Your task to perform on an android device: Open Google Maps Image 0: 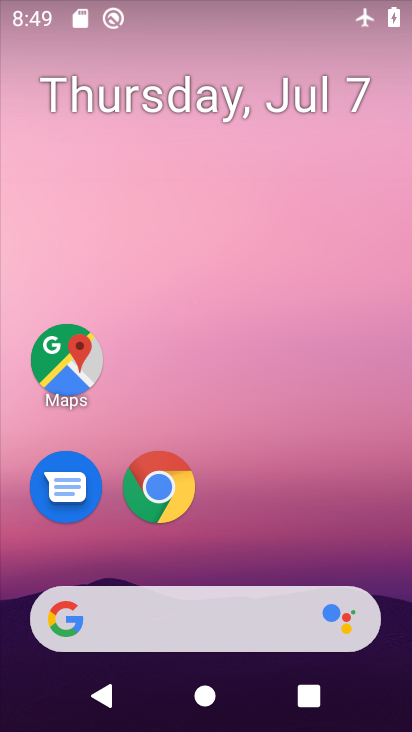
Step 0: drag from (372, 522) to (379, 70)
Your task to perform on an android device: Open Google Maps Image 1: 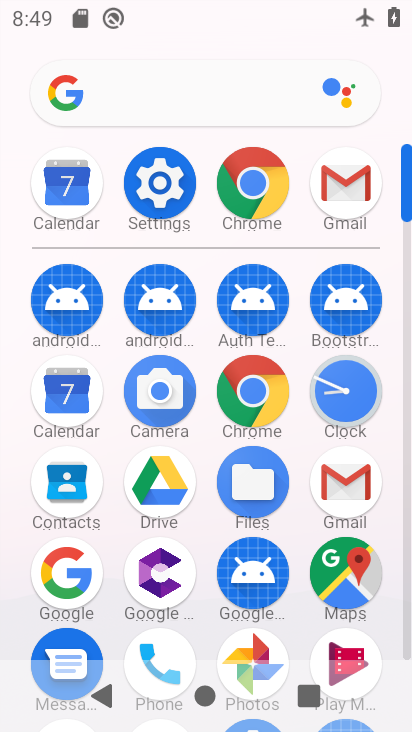
Step 1: click (341, 572)
Your task to perform on an android device: Open Google Maps Image 2: 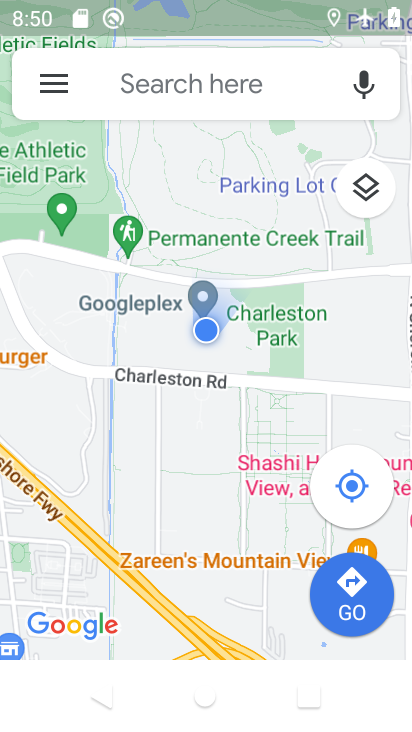
Step 2: task complete